Your task to perform on an android device: turn smart compose on in the gmail app Image 0: 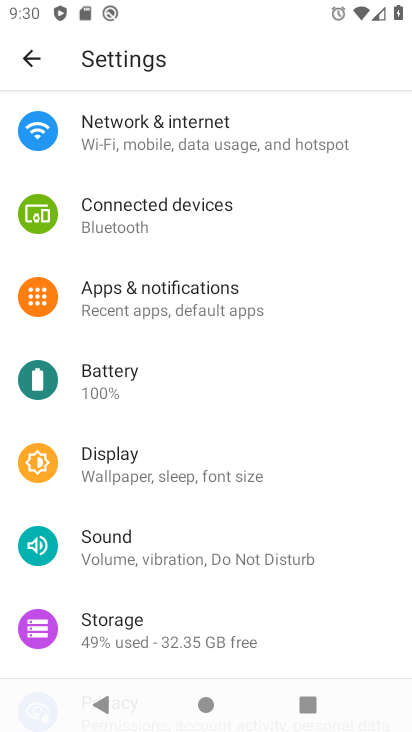
Step 0: press back button
Your task to perform on an android device: turn smart compose on in the gmail app Image 1: 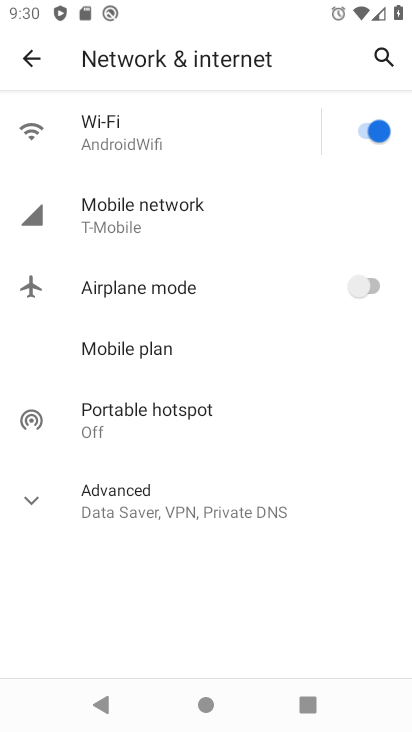
Step 1: press home button
Your task to perform on an android device: turn smart compose on in the gmail app Image 2: 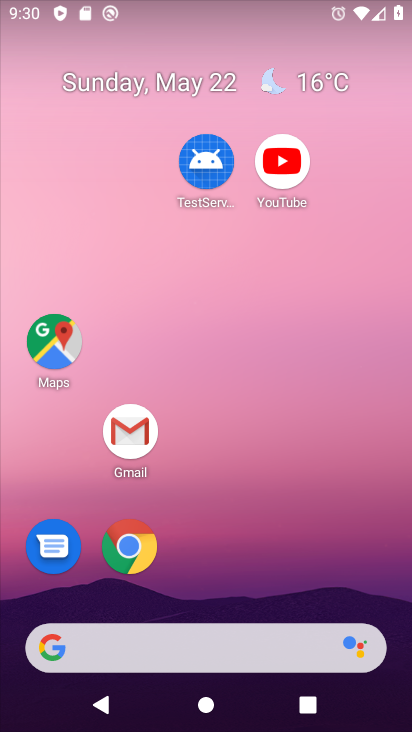
Step 2: drag from (303, 594) to (335, 149)
Your task to perform on an android device: turn smart compose on in the gmail app Image 3: 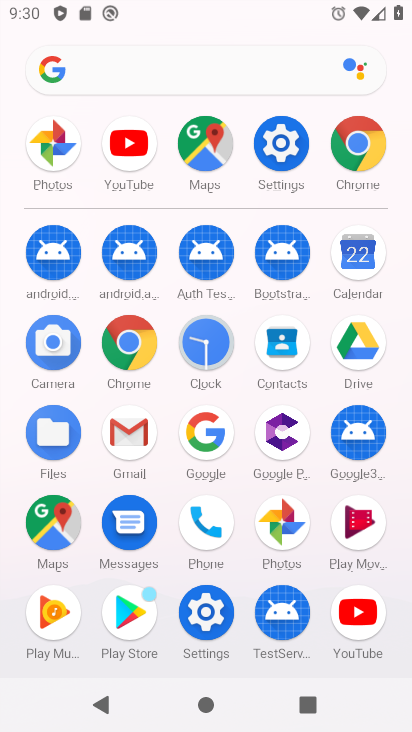
Step 3: click (123, 423)
Your task to perform on an android device: turn smart compose on in the gmail app Image 4: 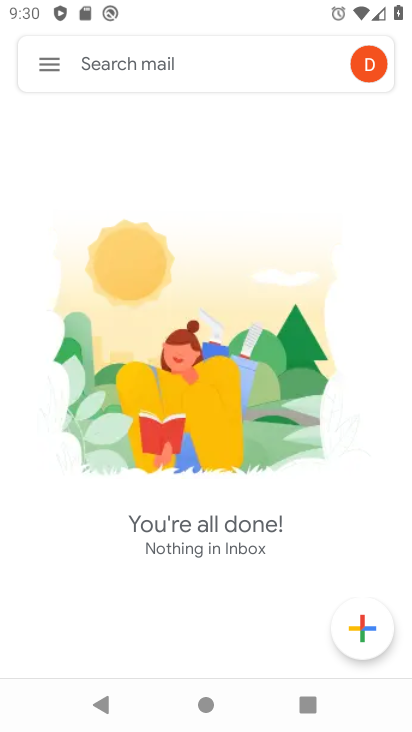
Step 4: click (46, 63)
Your task to perform on an android device: turn smart compose on in the gmail app Image 5: 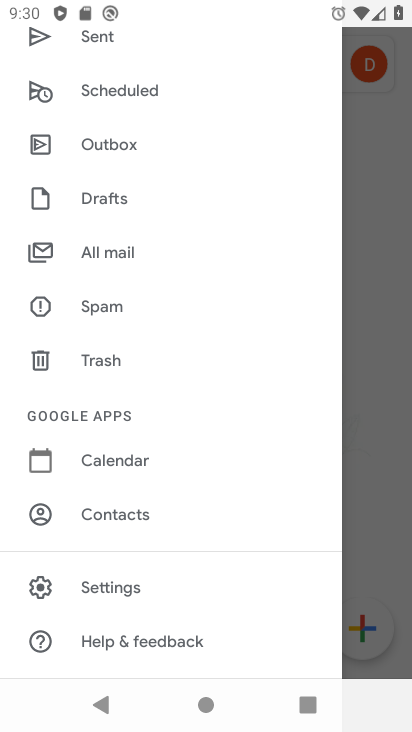
Step 5: click (118, 576)
Your task to perform on an android device: turn smart compose on in the gmail app Image 6: 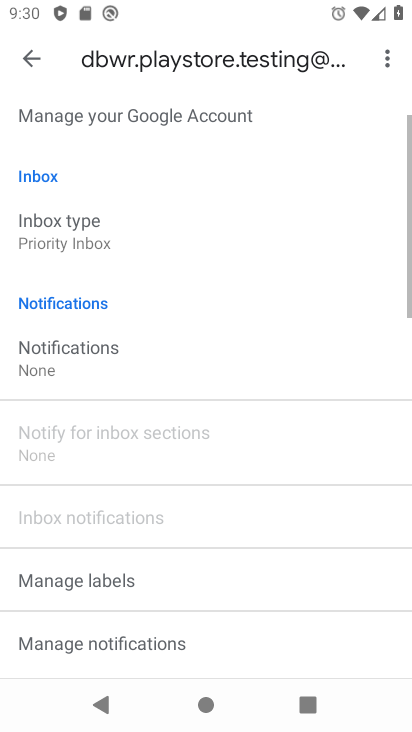
Step 6: task complete